Your task to perform on an android device: check android version Image 0: 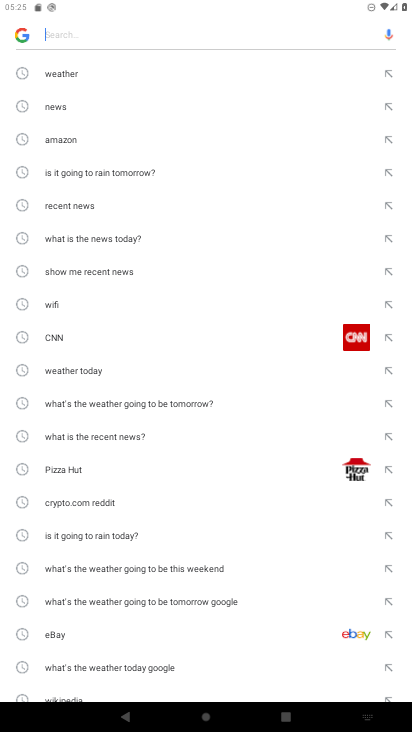
Step 0: press home button
Your task to perform on an android device: check android version Image 1: 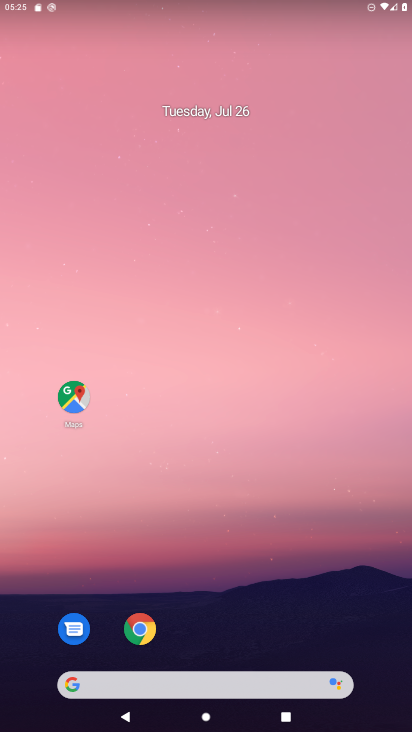
Step 1: drag from (184, 570) to (185, 56)
Your task to perform on an android device: check android version Image 2: 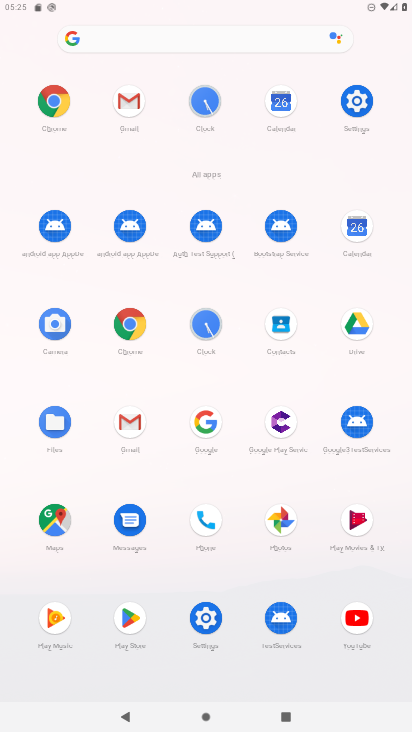
Step 2: click (353, 101)
Your task to perform on an android device: check android version Image 3: 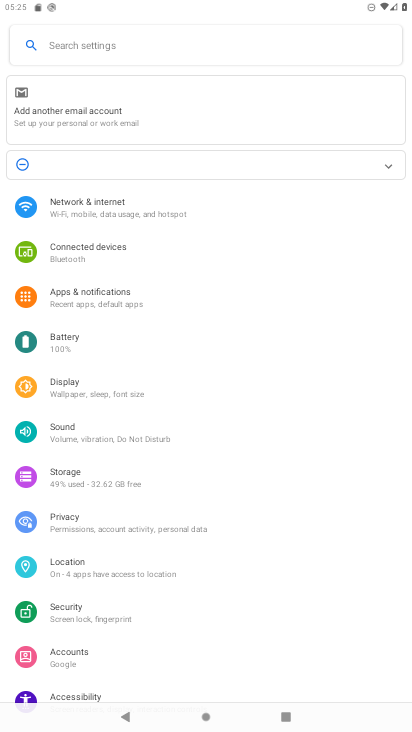
Step 3: drag from (141, 630) to (161, 76)
Your task to perform on an android device: check android version Image 4: 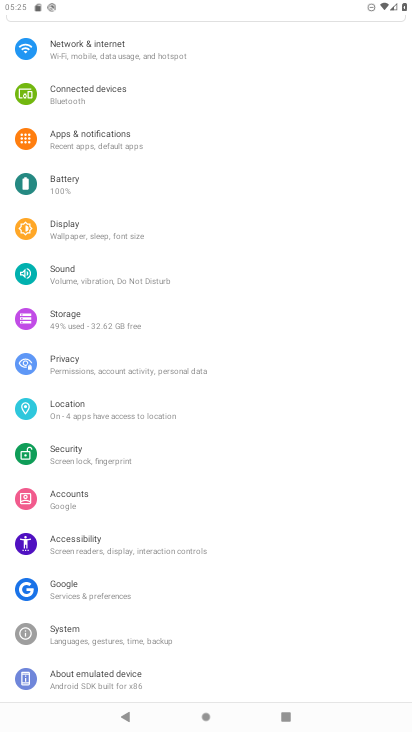
Step 4: click (78, 678)
Your task to perform on an android device: check android version Image 5: 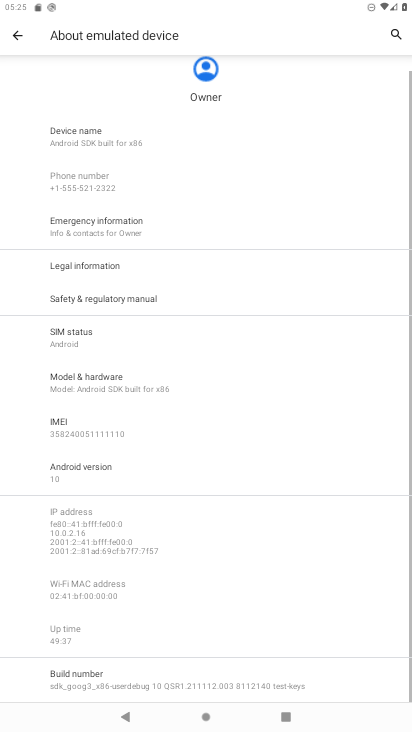
Step 5: click (109, 480)
Your task to perform on an android device: check android version Image 6: 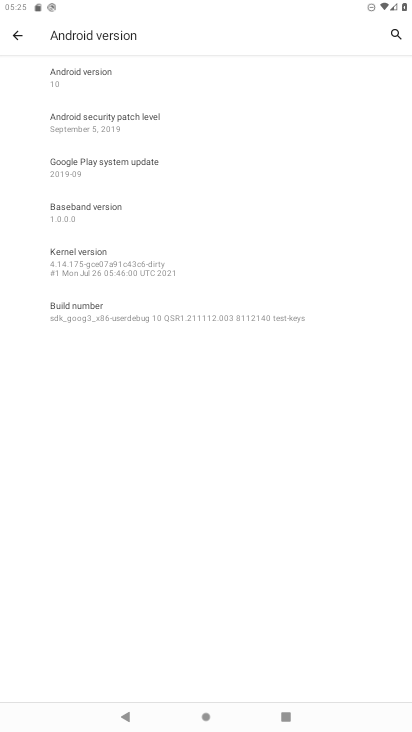
Step 6: task complete